Your task to perform on an android device: Go to Yahoo.com Image 0: 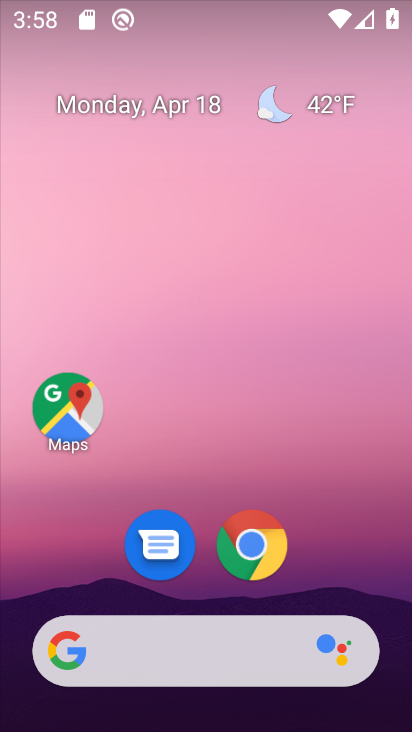
Step 0: drag from (315, 548) to (305, 140)
Your task to perform on an android device: Go to Yahoo.com Image 1: 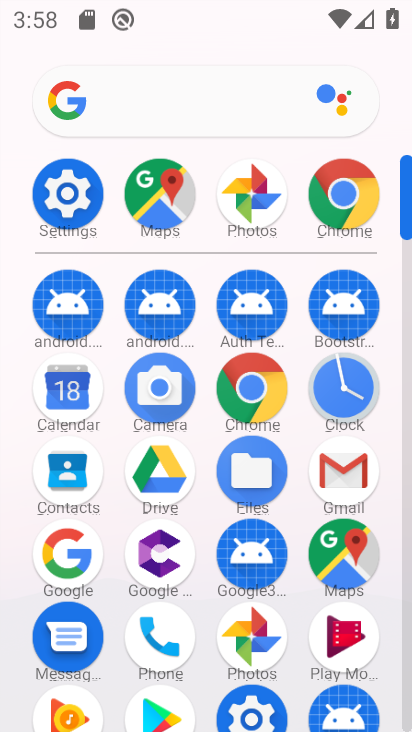
Step 1: click (271, 401)
Your task to perform on an android device: Go to Yahoo.com Image 2: 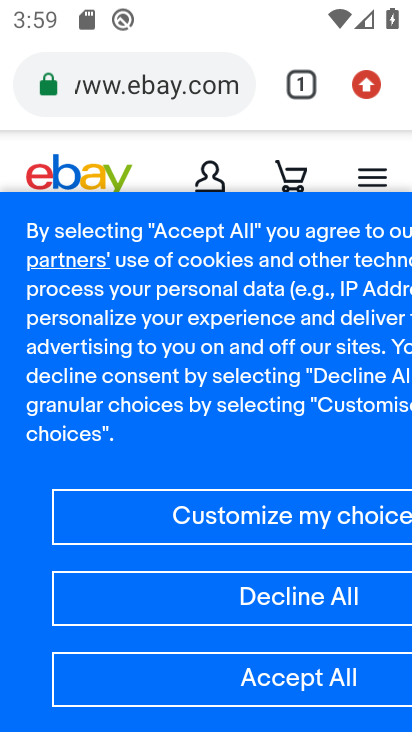
Step 2: press back button
Your task to perform on an android device: Go to Yahoo.com Image 3: 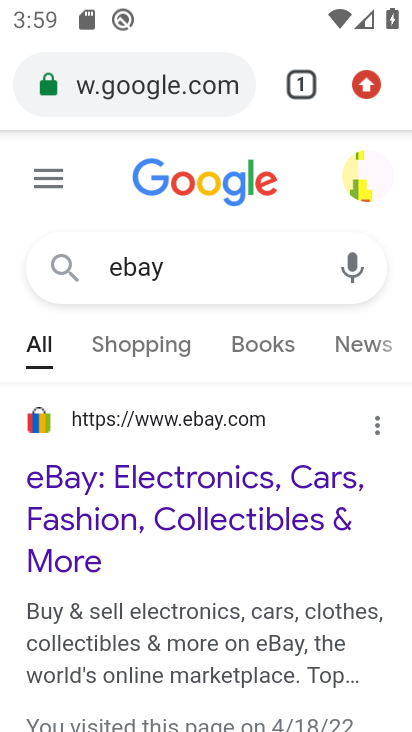
Step 3: press back button
Your task to perform on an android device: Go to Yahoo.com Image 4: 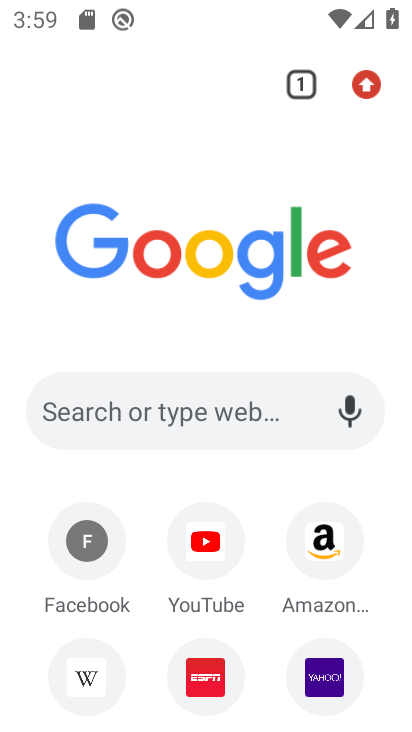
Step 4: click (317, 674)
Your task to perform on an android device: Go to Yahoo.com Image 5: 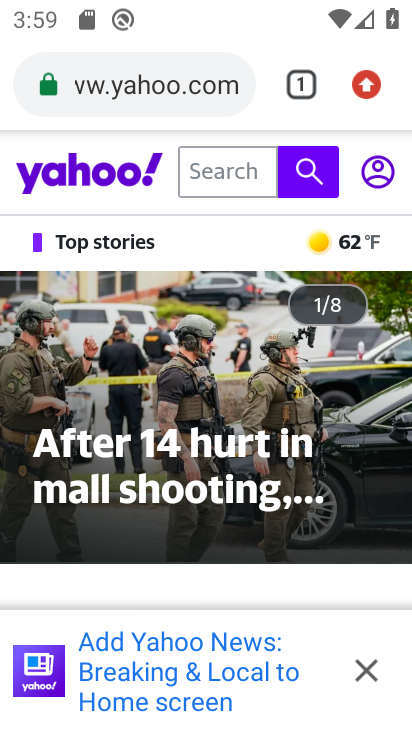
Step 5: task complete